Your task to perform on an android device: uninstall "Pinterest" Image 0: 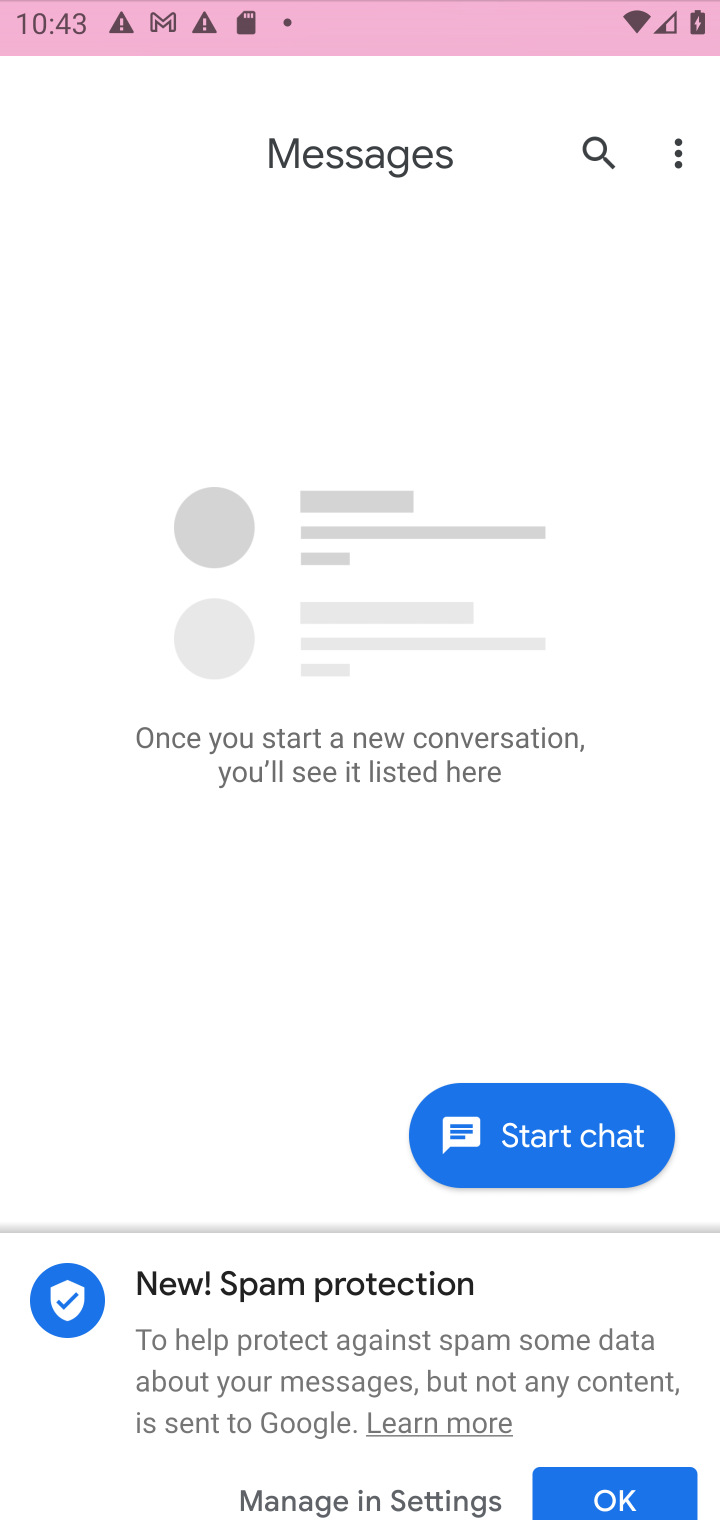
Step 0: press home button
Your task to perform on an android device: uninstall "Pinterest" Image 1: 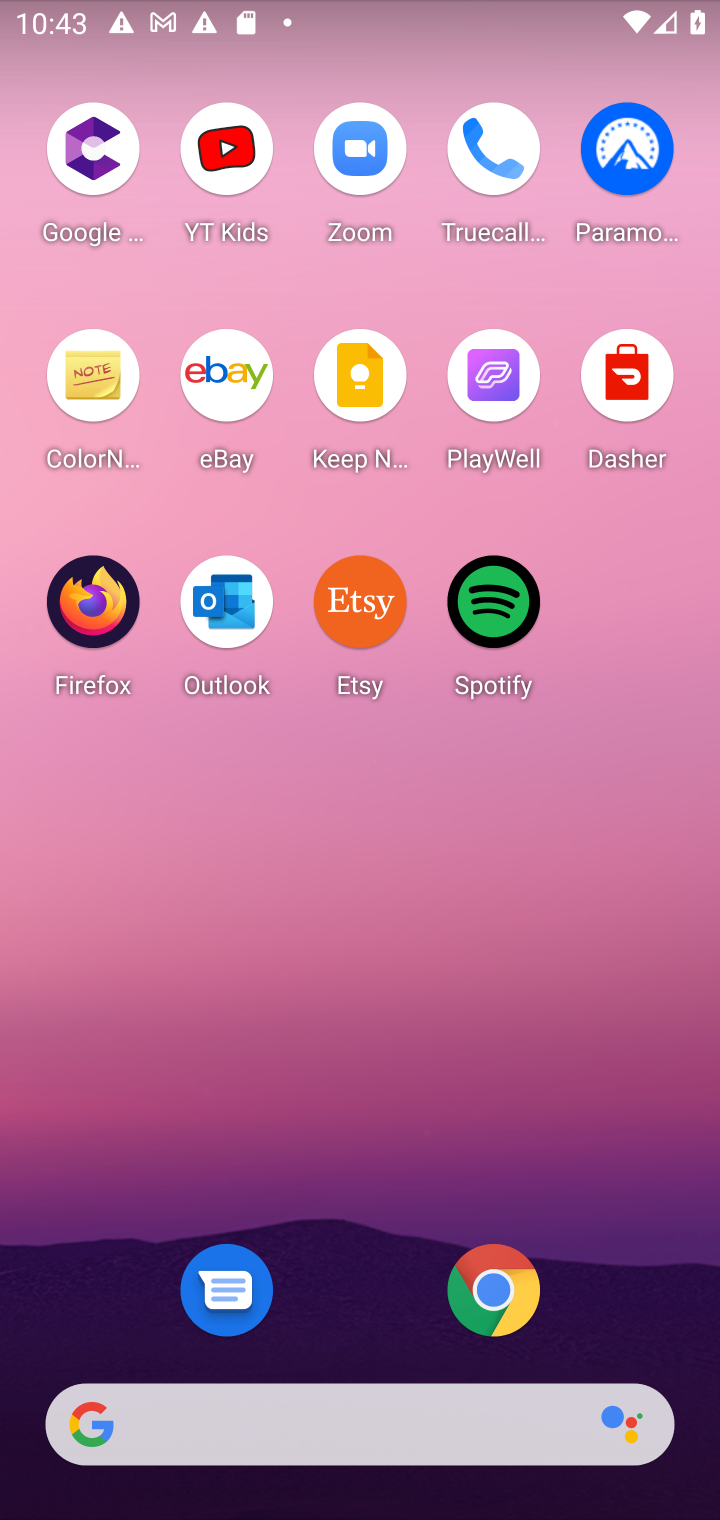
Step 1: press home button
Your task to perform on an android device: uninstall "Pinterest" Image 2: 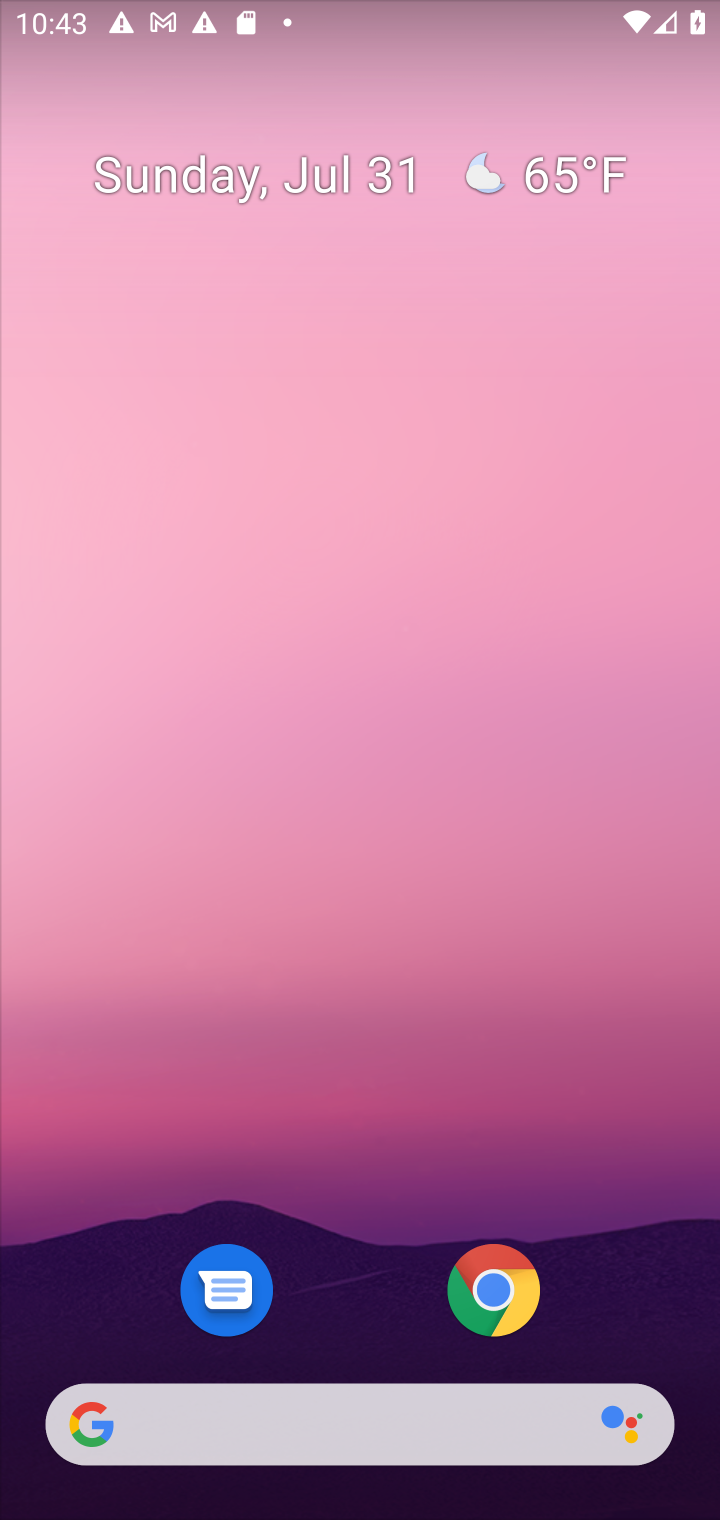
Step 2: drag from (624, 1136) to (541, 153)
Your task to perform on an android device: uninstall "Pinterest" Image 3: 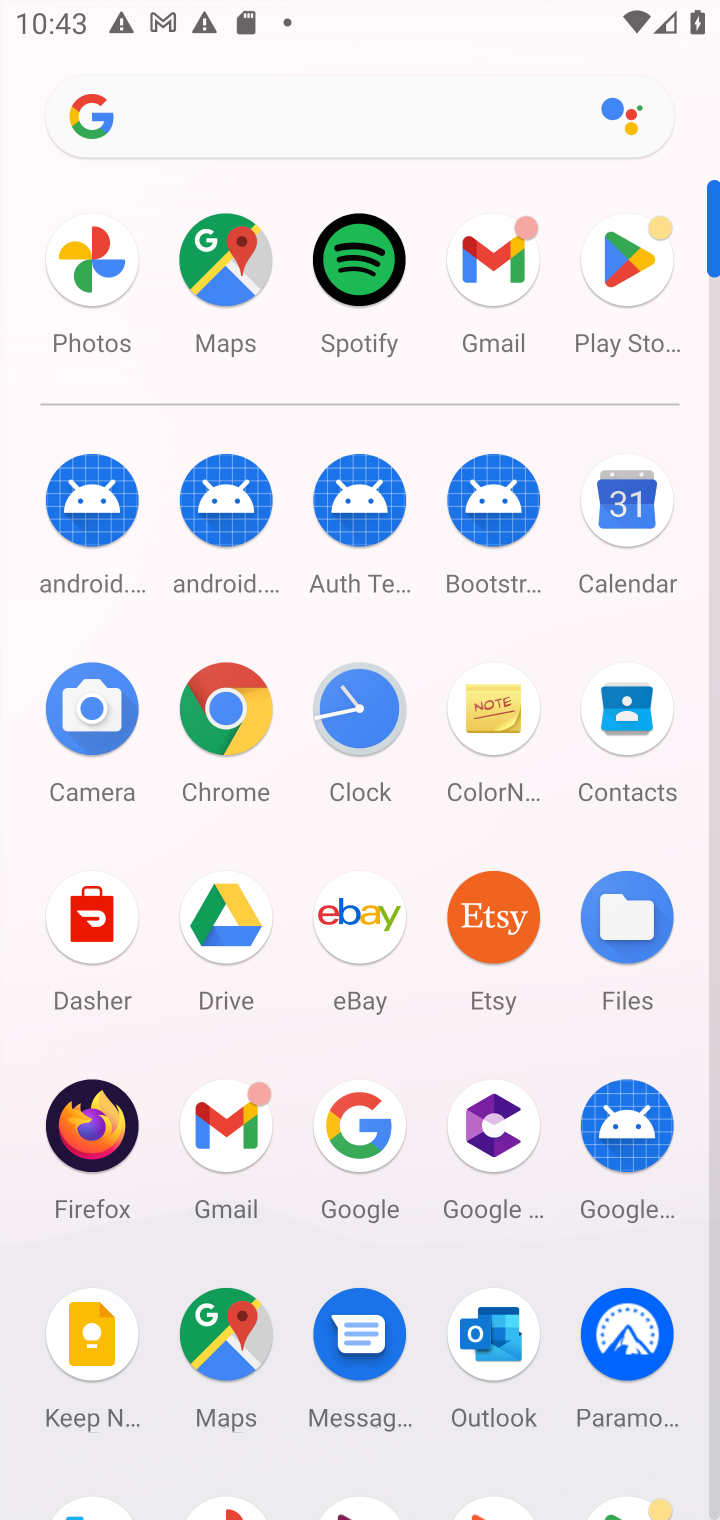
Step 3: click (617, 265)
Your task to perform on an android device: uninstall "Pinterest" Image 4: 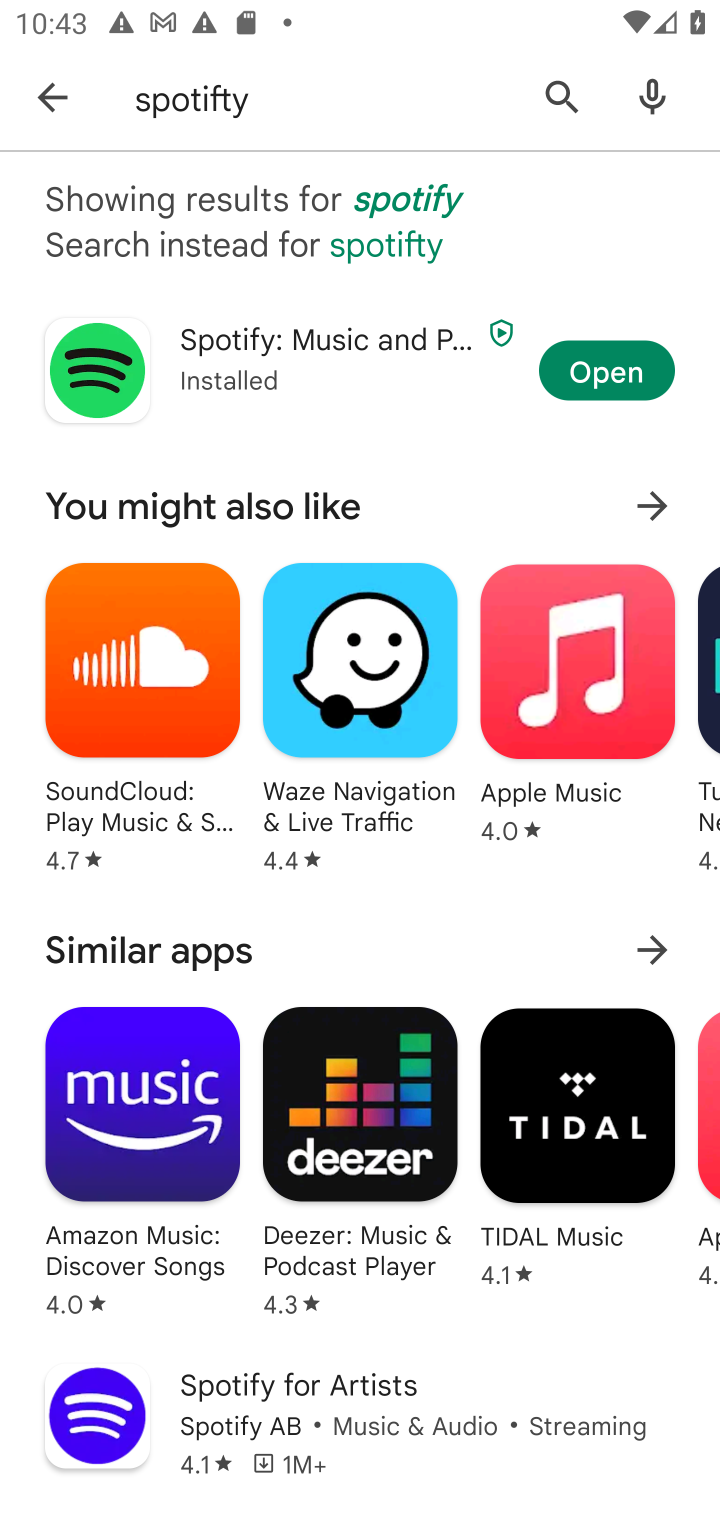
Step 4: click (554, 76)
Your task to perform on an android device: uninstall "Pinterest" Image 5: 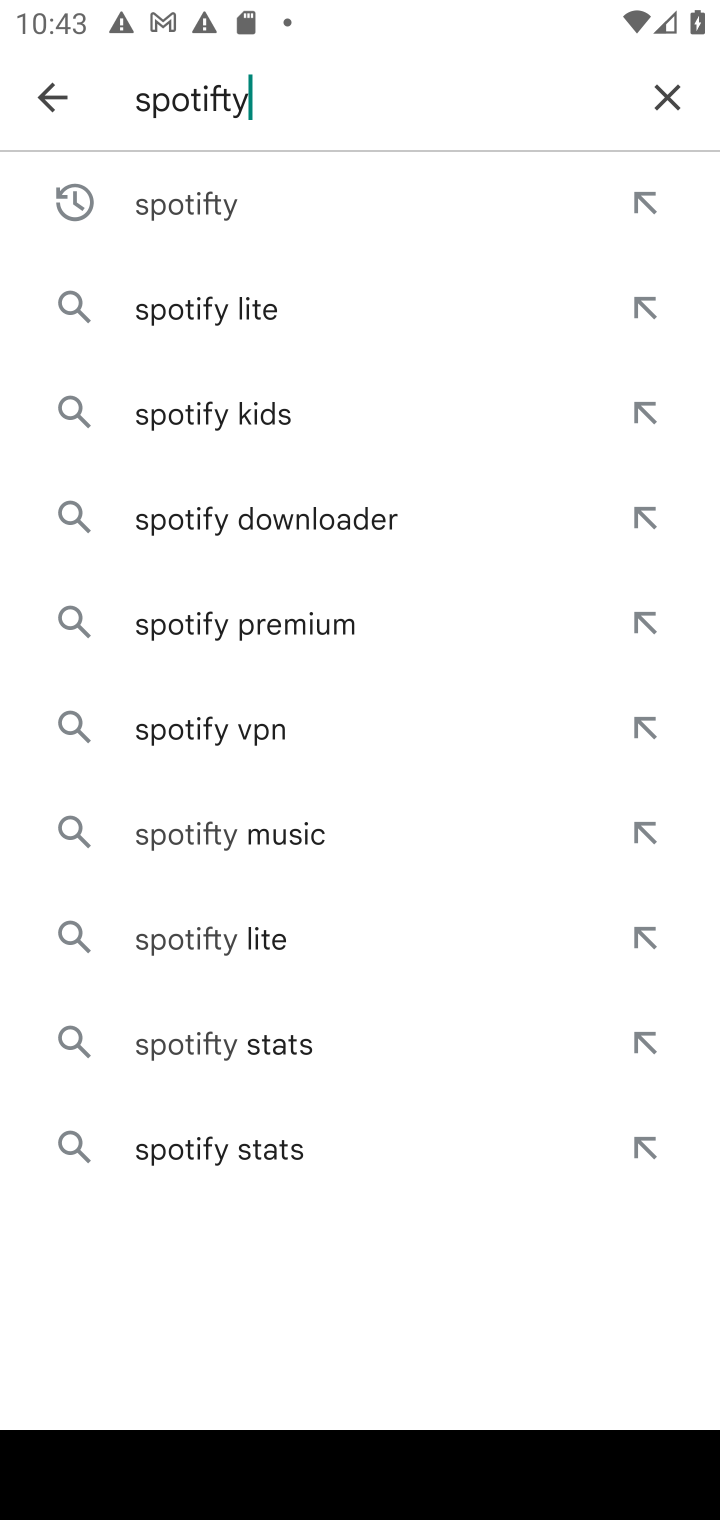
Step 5: click (665, 101)
Your task to perform on an android device: uninstall "Pinterest" Image 6: 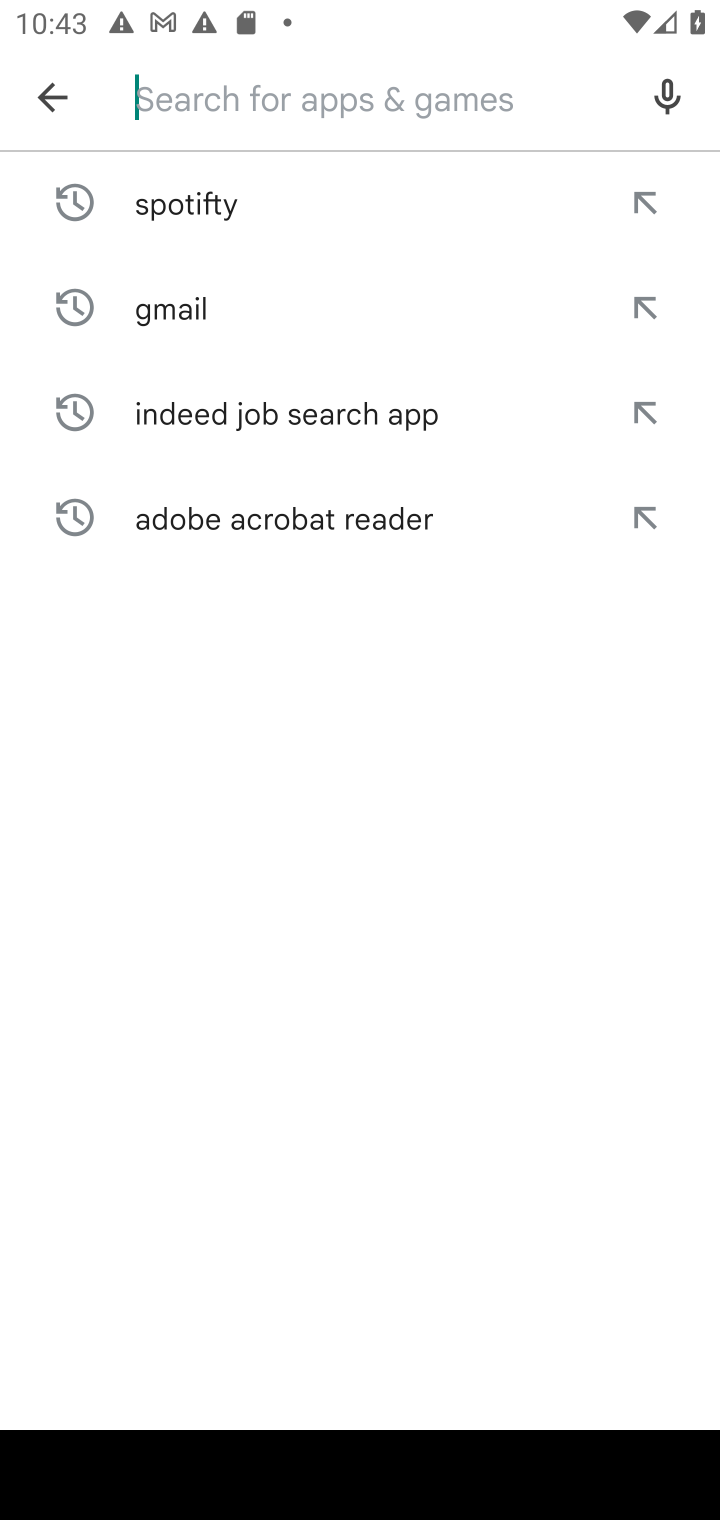
Step 6: type "pinterest"
Your task to perform on an android device: uninstall "Pinterest" Image 7: 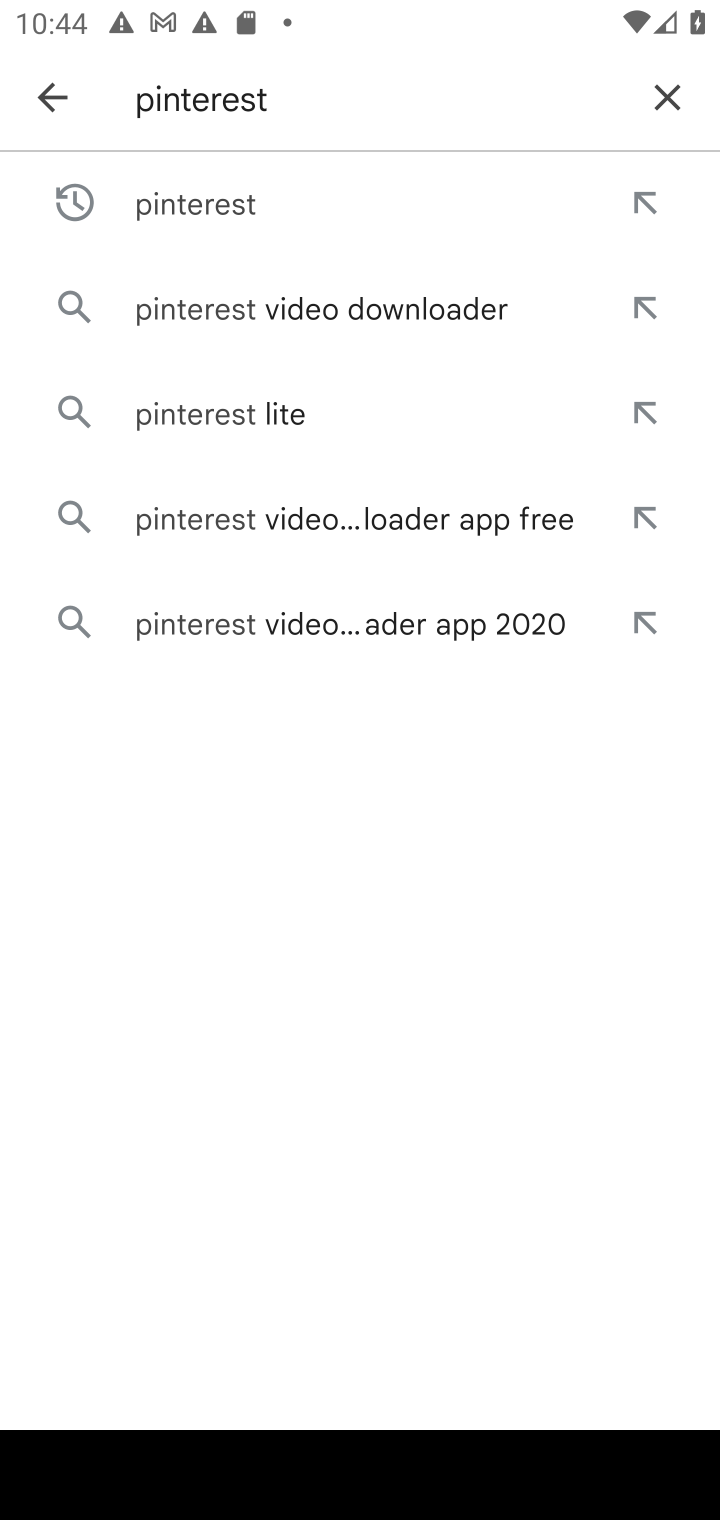
Step 7: click (342, 203)
Your task to perform on an android device: uninstall "Pinterest" Image 8: 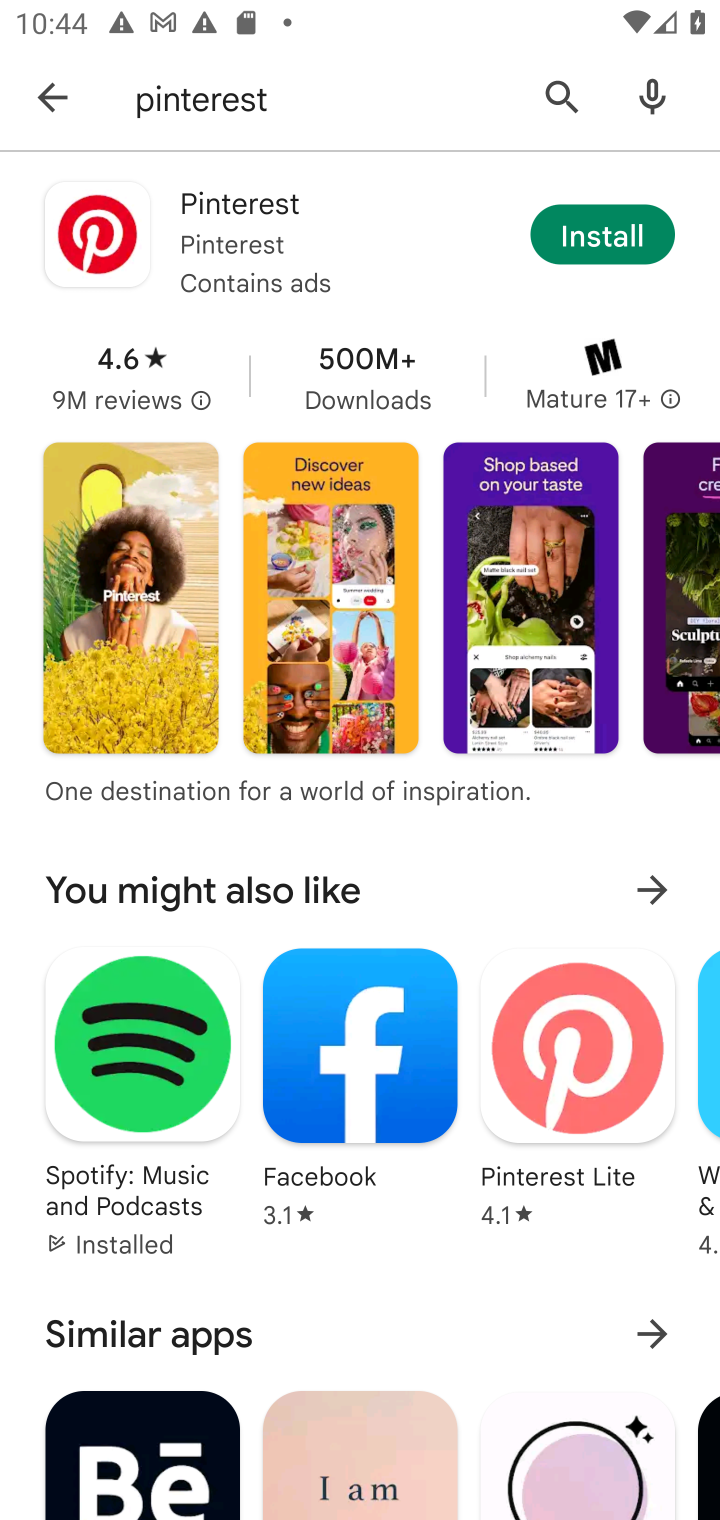
Step 8: task complete